Your task to perform on an android device: Is it going to rain today? Image 0: 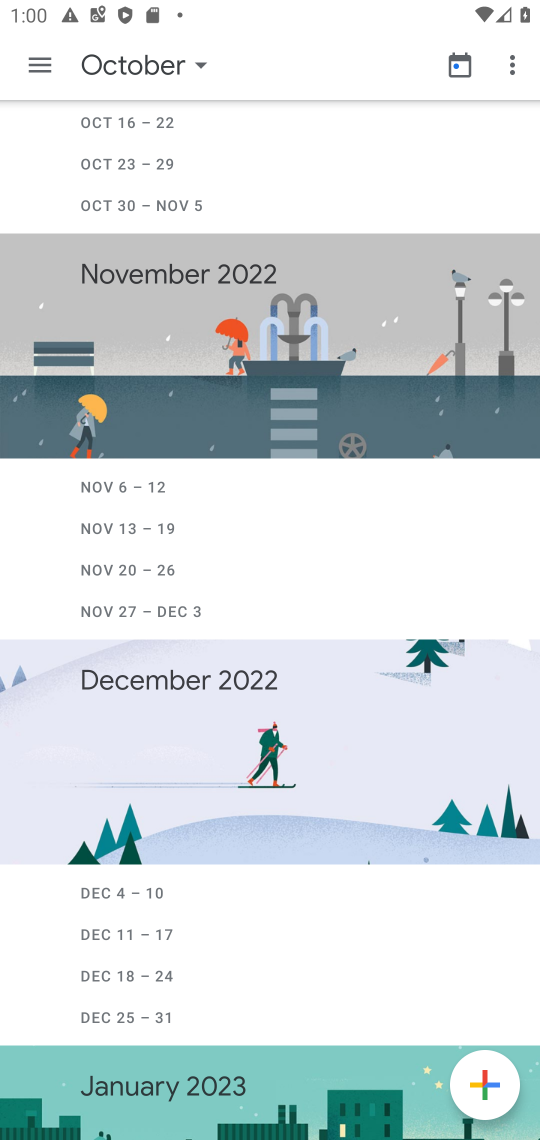
Step 0: press home button
Your task to perform on an android device: Is it going to rain today? Image 1: 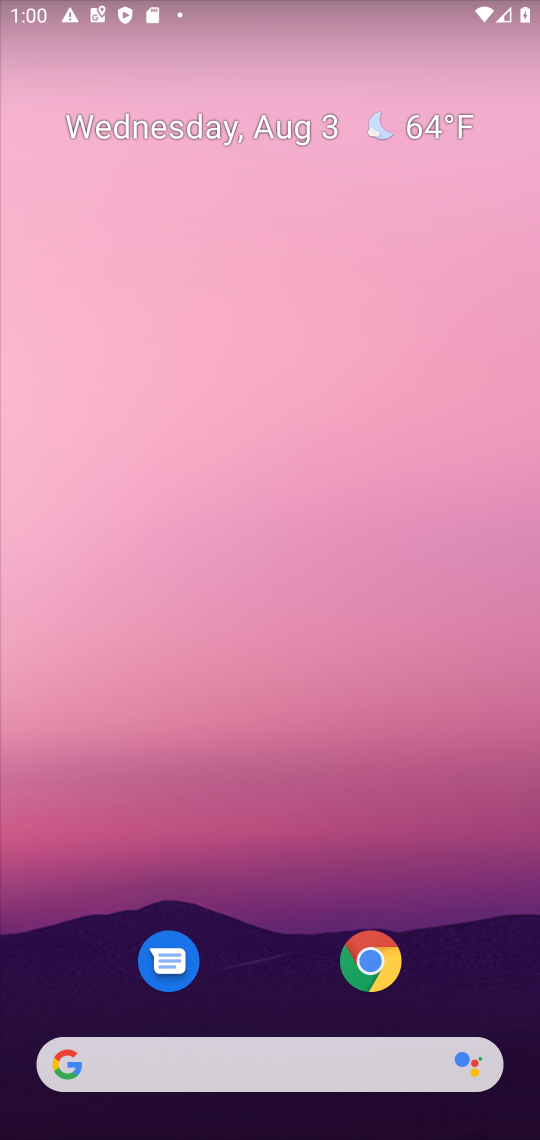
Step 1: click (435, 141)
Your task to perform on an android device: Is it going to rain today? Image 2: 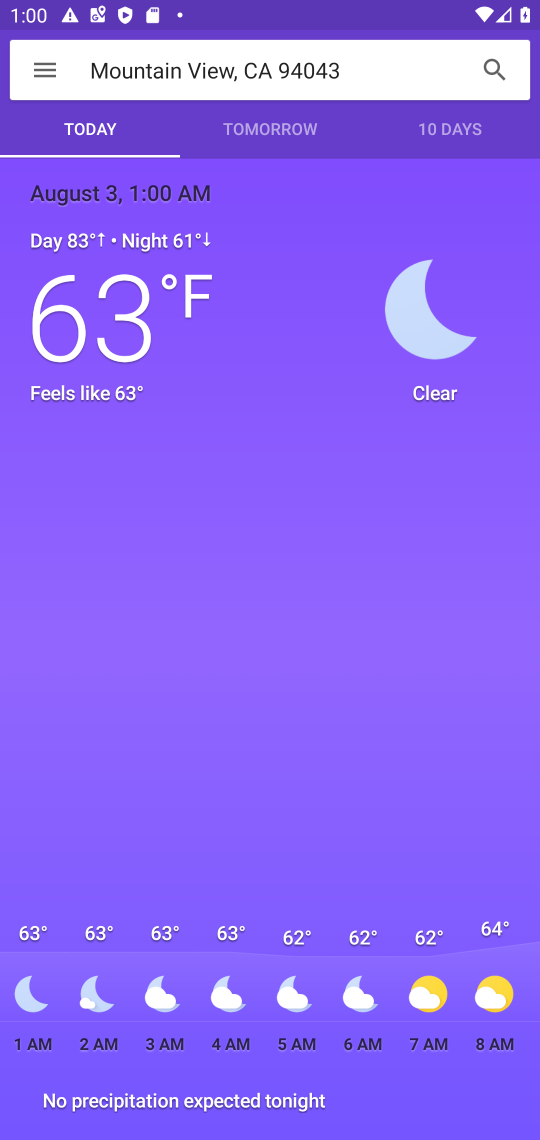
Step 2: task complete